Your task to perform on an android device: remove spam from my inbox in the gmail app Image 0: 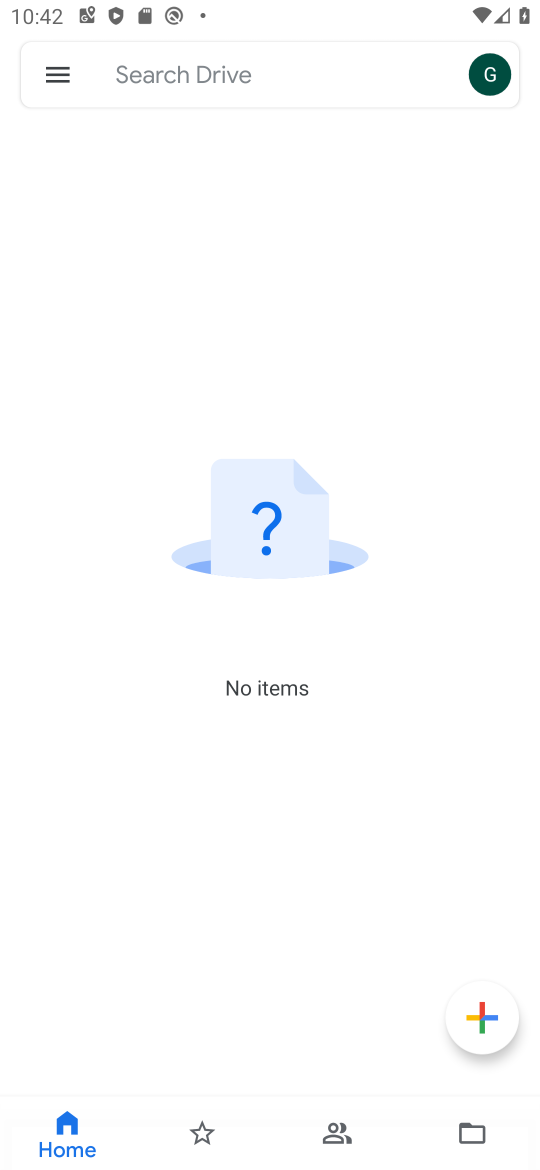
Step 0: press back button
Your task to perform on an android device: remove spam from my inbox in the gmail app Image 1: 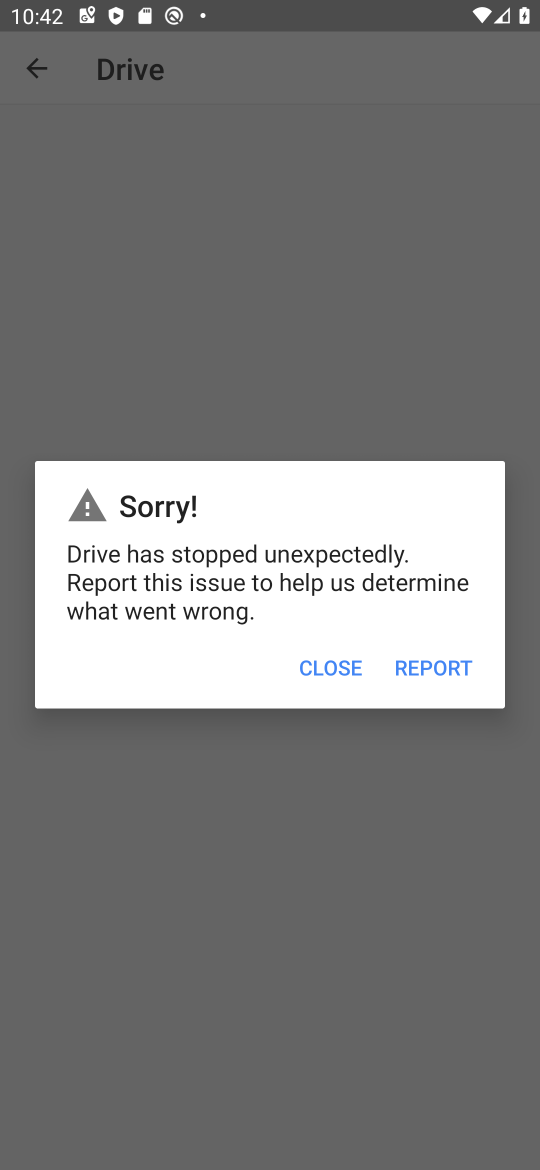
Step 1: press home button
Your task to perform on an android device: remove spam from my inbox in the gmail app Image 2: 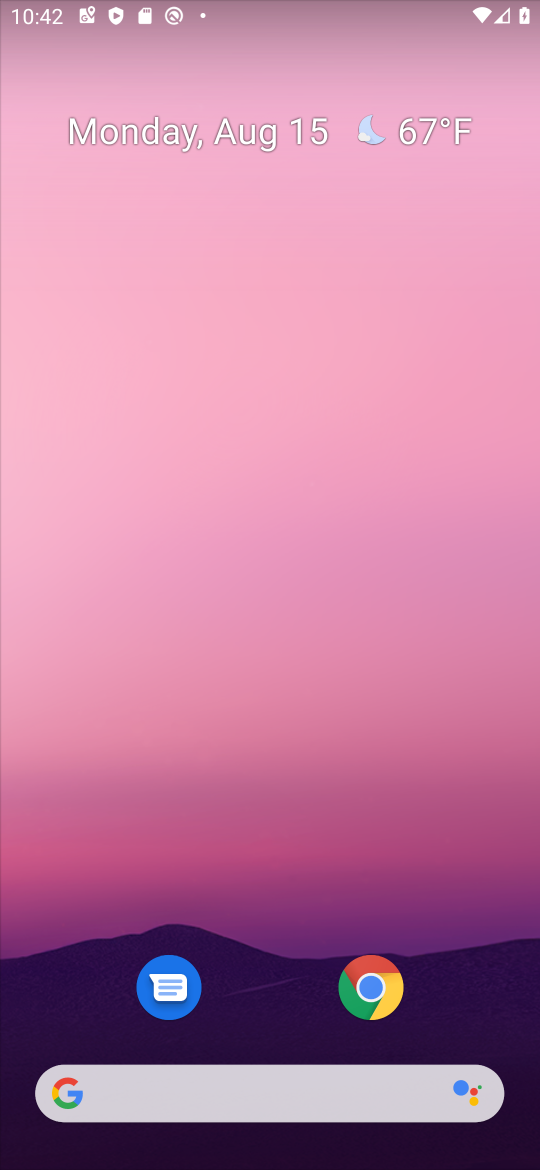
Step 2: drag from (241, 1053) to (215, 251)
Your task to perform on an android device: remove spam from my inbox in the gmail app Image 3: 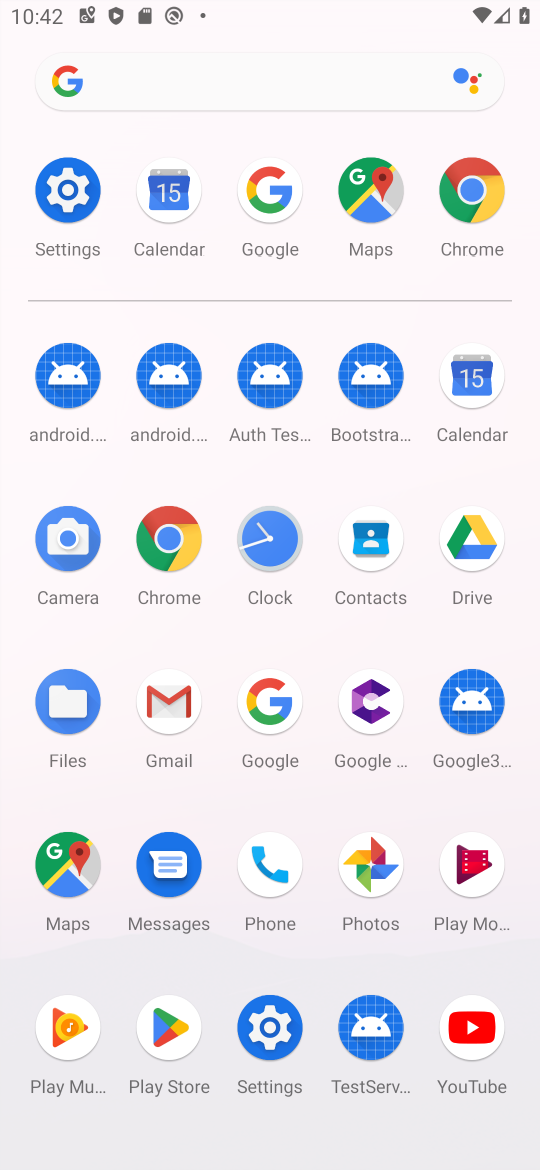
Step 3: click (162, 715)
Your task to perform on an android device: remove spam from my inbox in the gmail app Image 4: 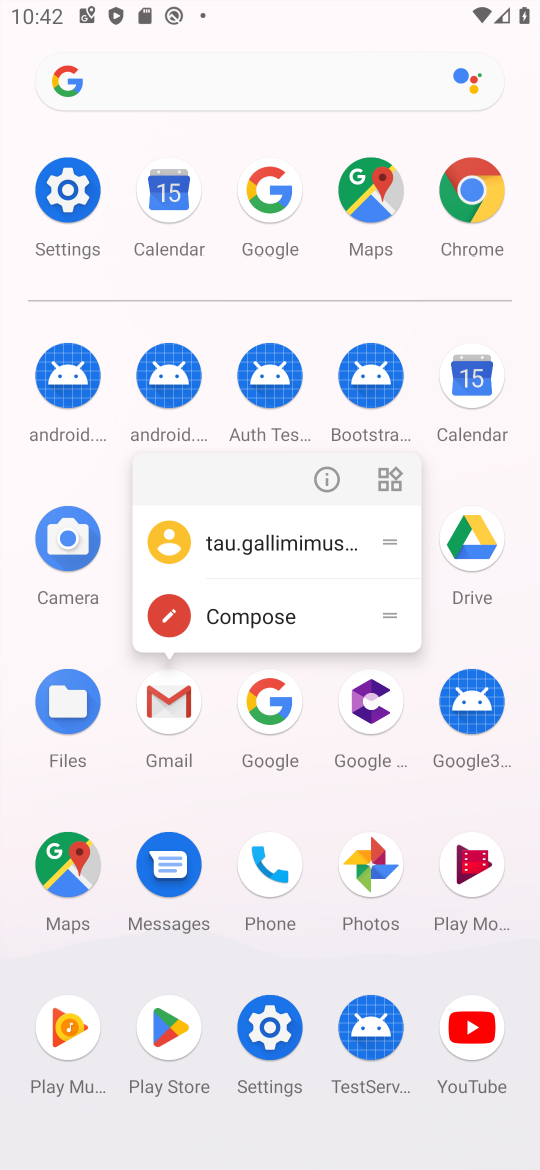
Step 4: click (158, 711)
Your task to perform on an android device: remove spam from my inbox in the gmail app Image 5: 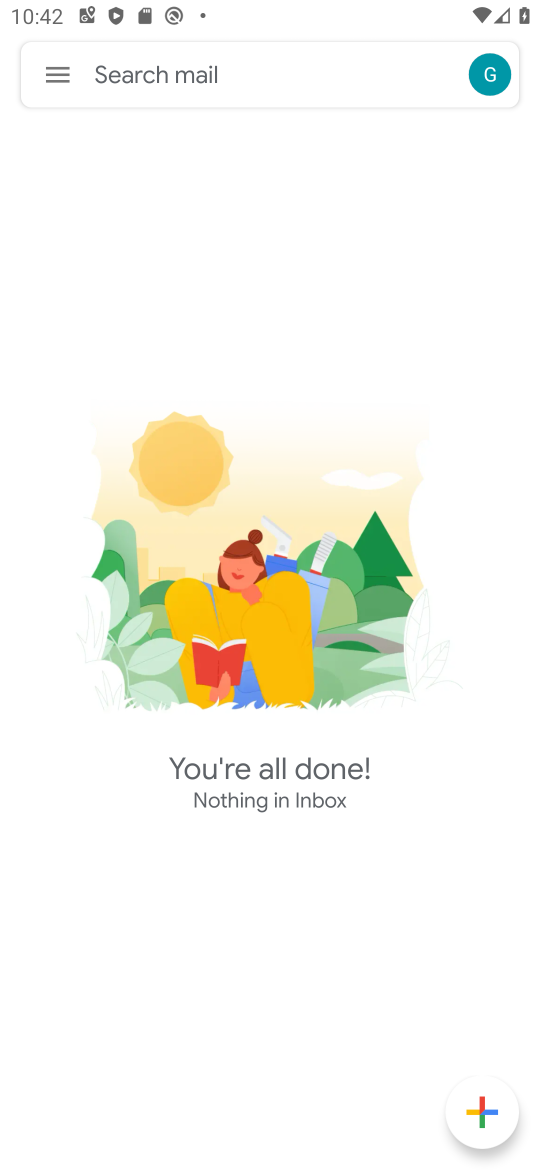
Step 5: click (50, 91)
Your task to perform on an android device: remove spam from my inbox in the gmail app Image 6: 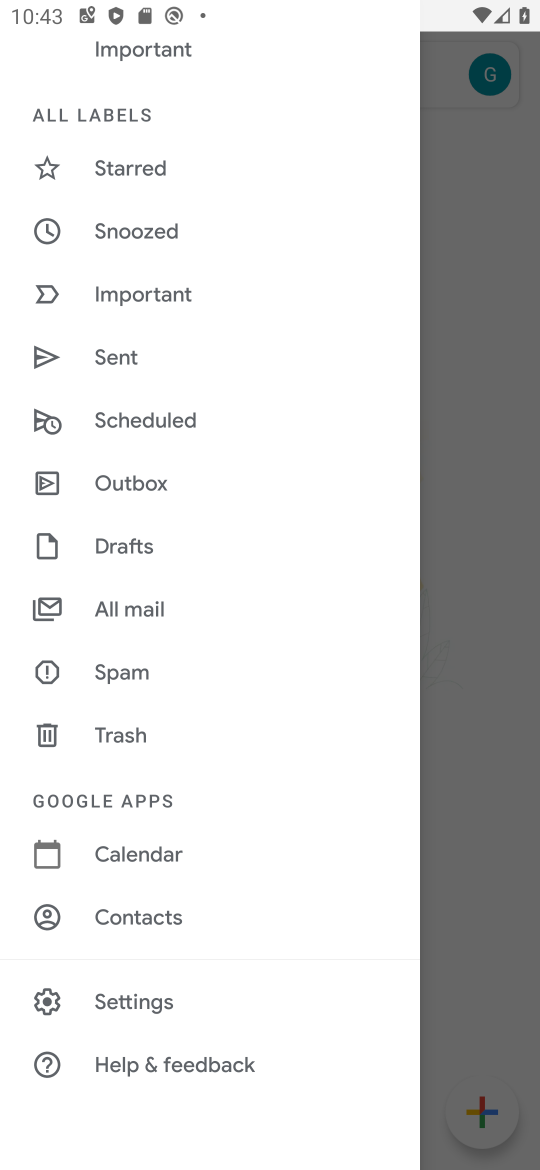
Step 6: click (132, 667)
Your task to perform on an android device: remove spam from my inbox in the gmail app Image 7: 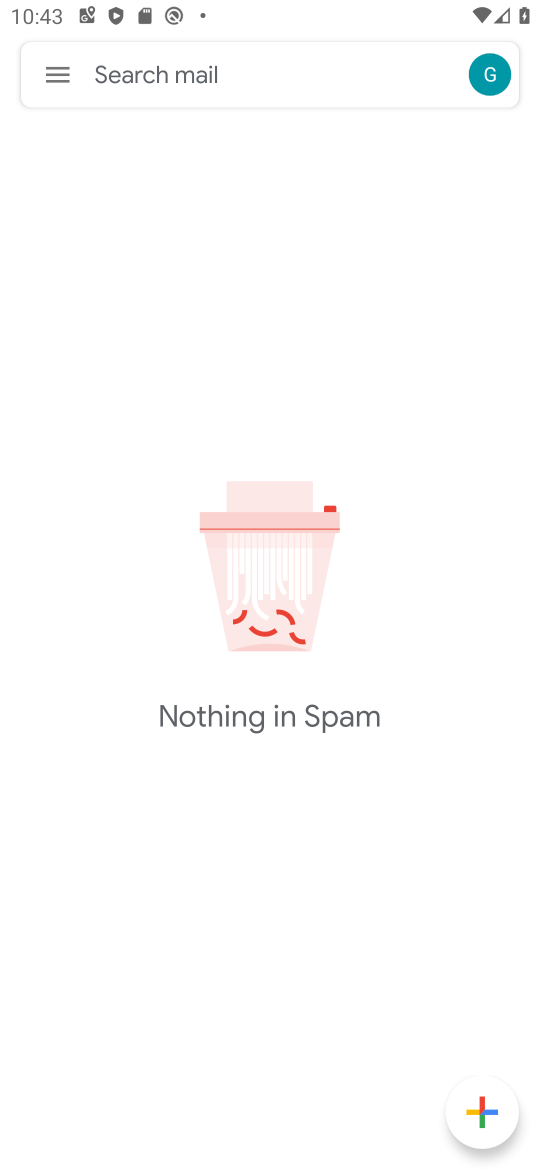
Step 7: task complete